Your task to perform on an android device: Go to settings Image 0: 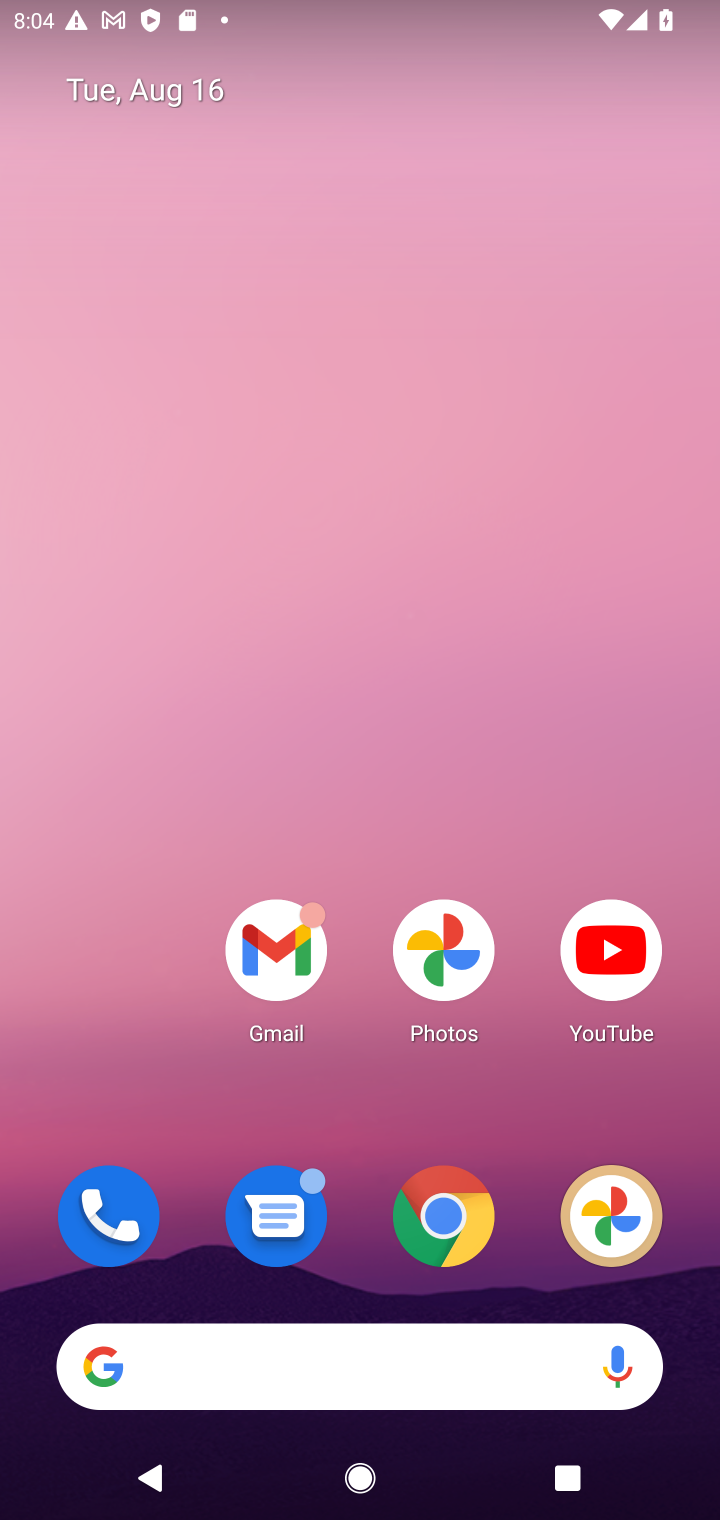
Step 0: drag from (329, 1156) to (582, 197)
Your task to perform on an android device: Go to settings Image 1: 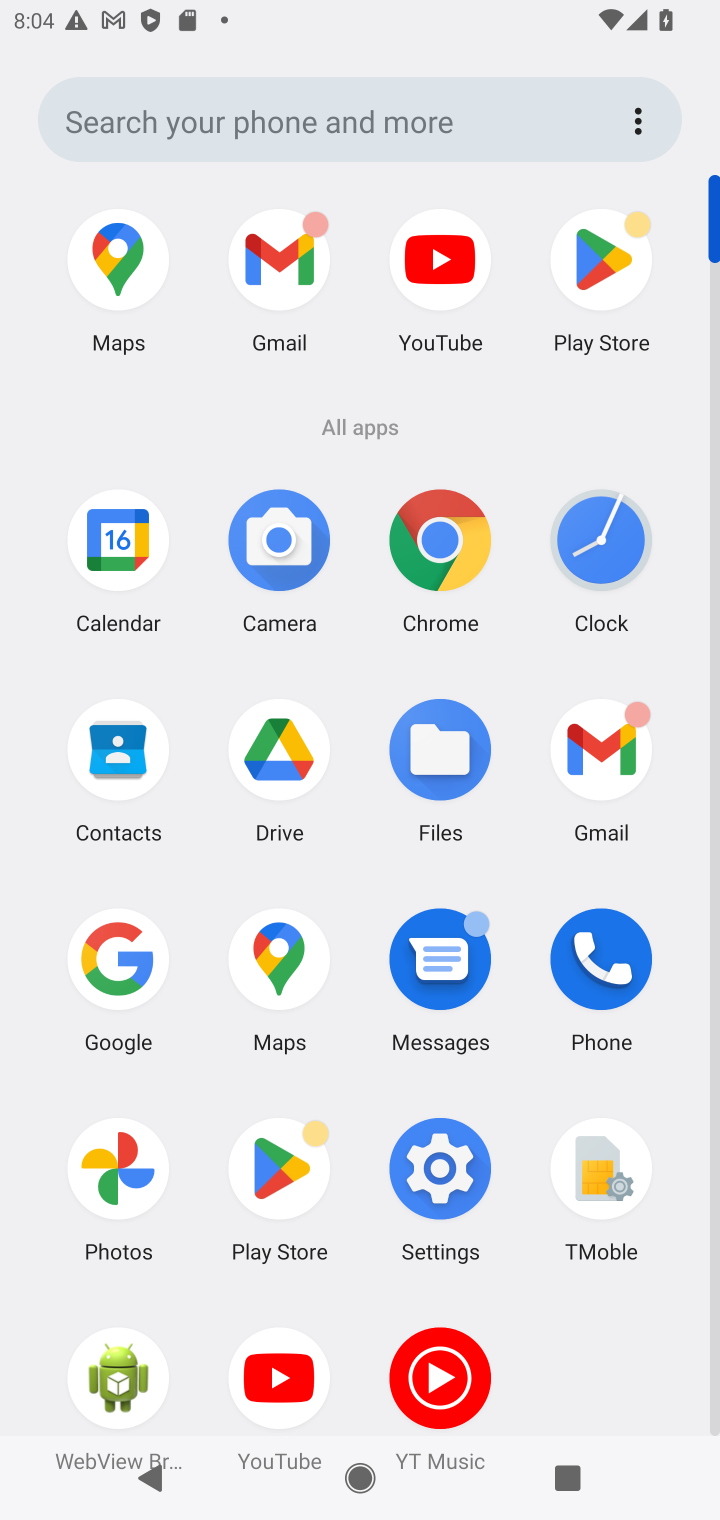
Step 1: click (421, 1152)
Your task to perform on an android device: Go to settings Image 2: 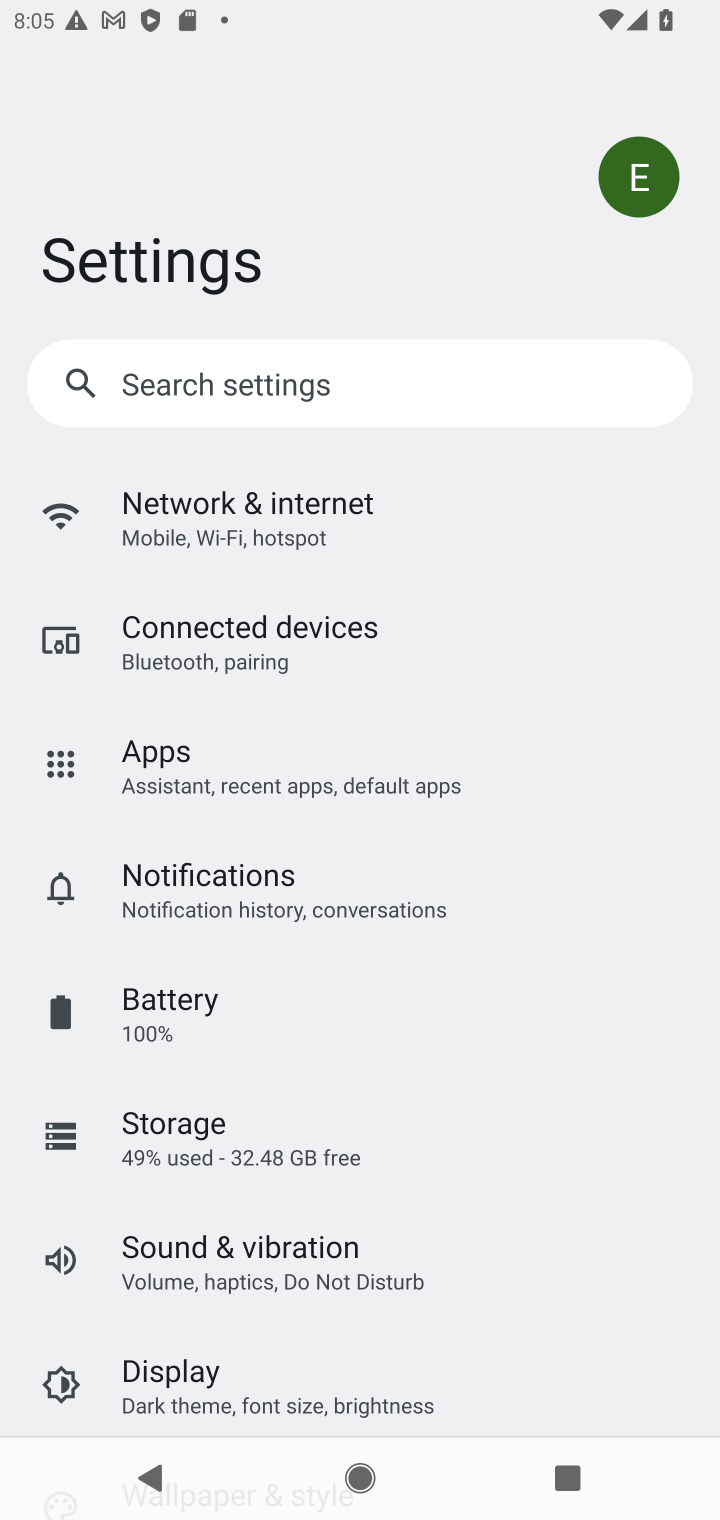
Step 2: task complete